Your task to perform on an android device: add a contact Image 0: 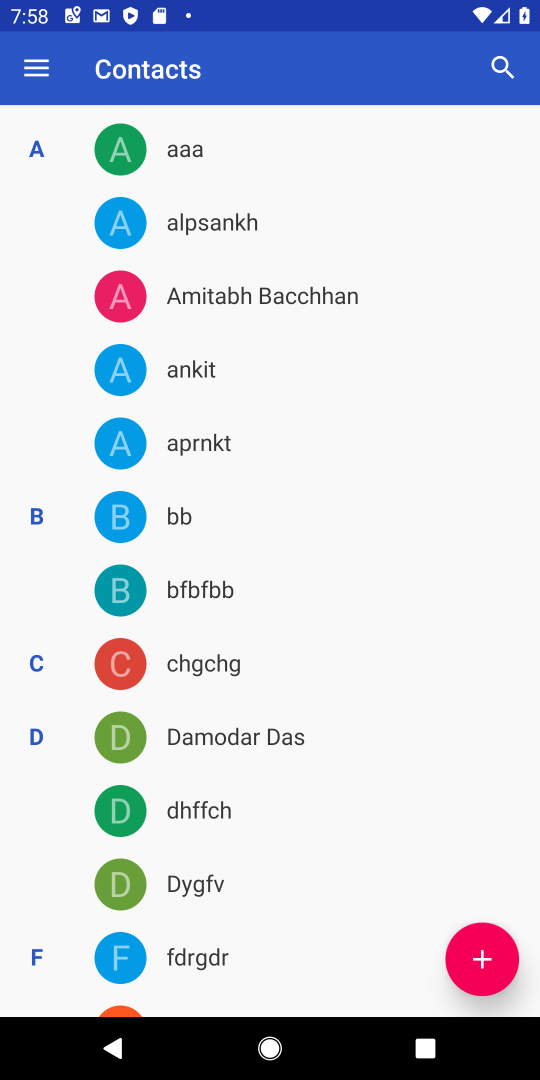
Step 0: click (484, 956)
Your task to perform on an android device: add a contact Image 1: 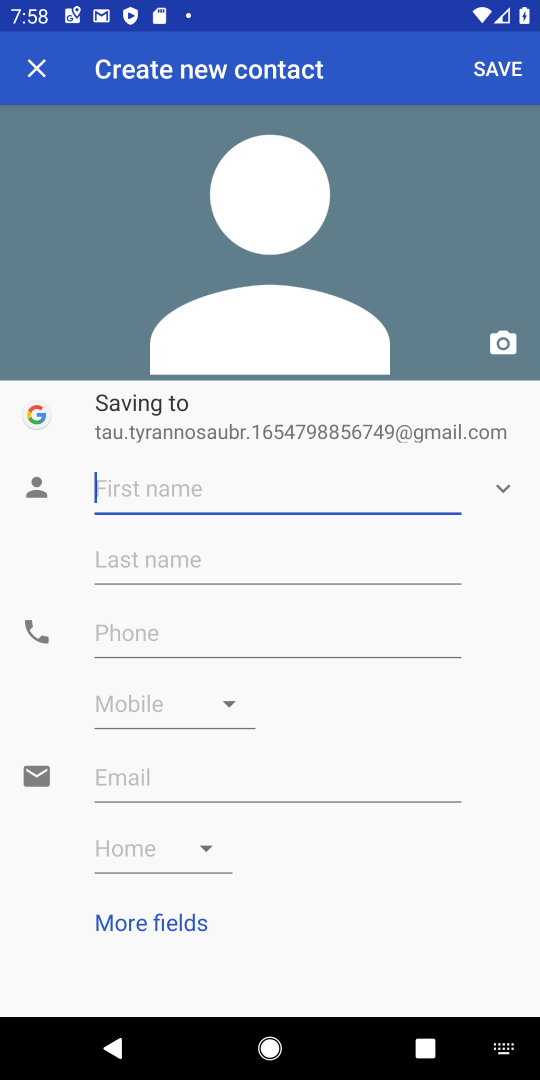
Step 1: type "nnn"
Your task to perform on an android device: add a contact Image 2: 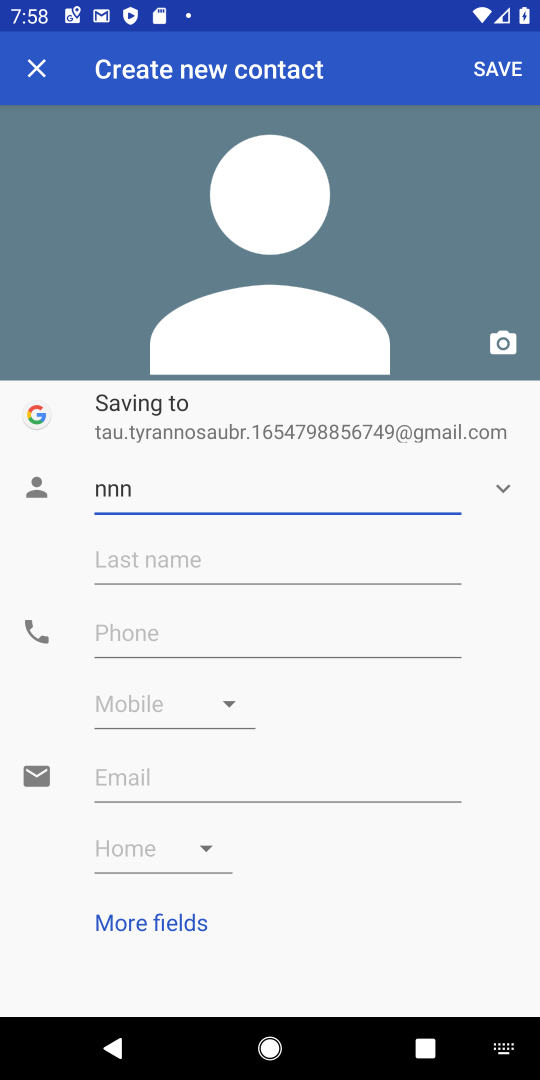
Step 2: click (160, 634)
Your task to perform on an android device: add a contact Image 3: 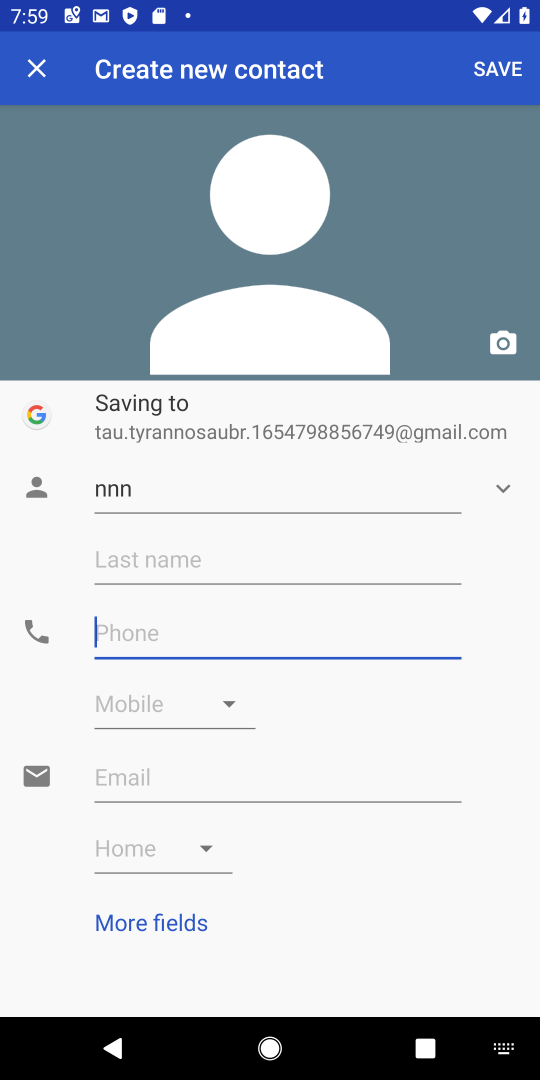
Step 3: type "777"
Your task to perform on an android device: add a contact Image 4: 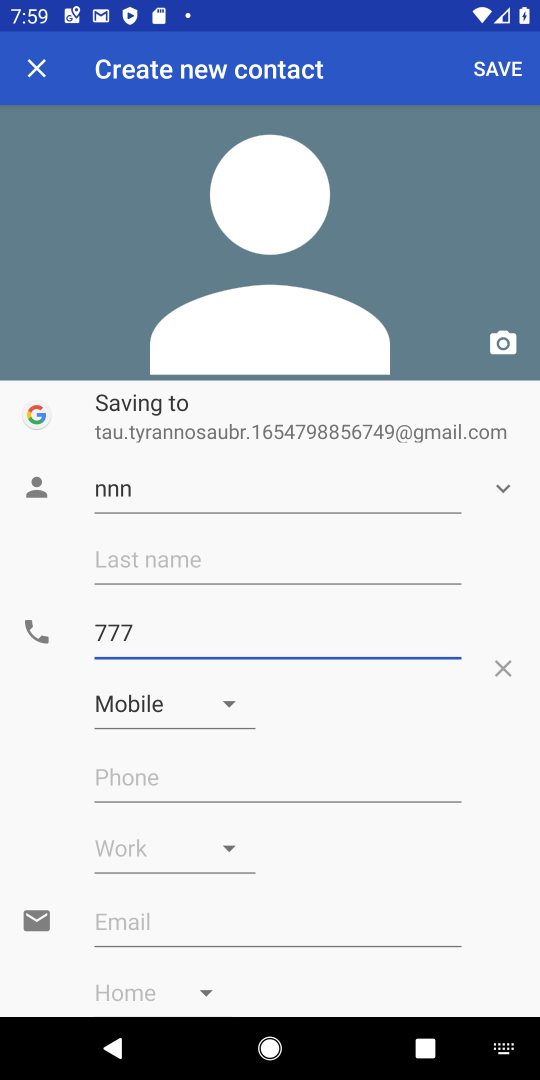
Step 4: click (503, 60)
Your task to perform on an android device: add a contact Image 5: 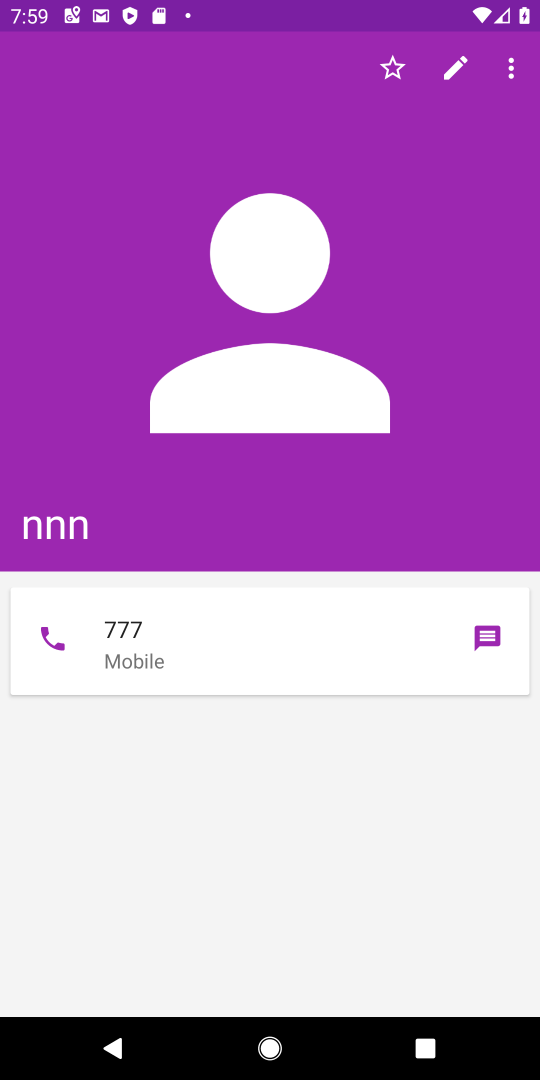
Step 5: task complete